Your task to perform on an android device: Open Chrome and go to the settings page Image 0: 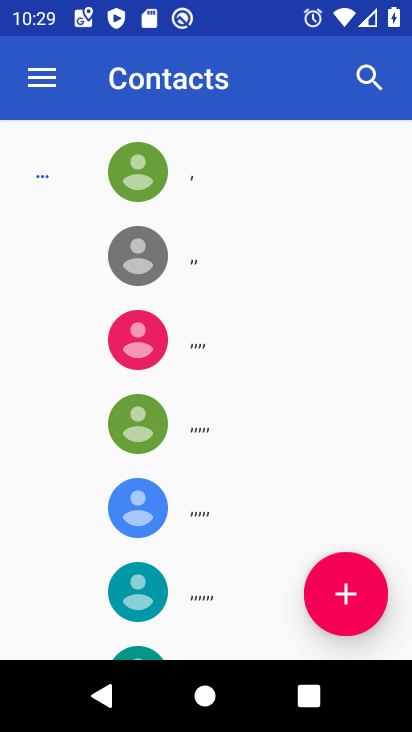
Step 0: press home button
Your task to perform on an android device: Open Chrome and go to the settings page Image 1: 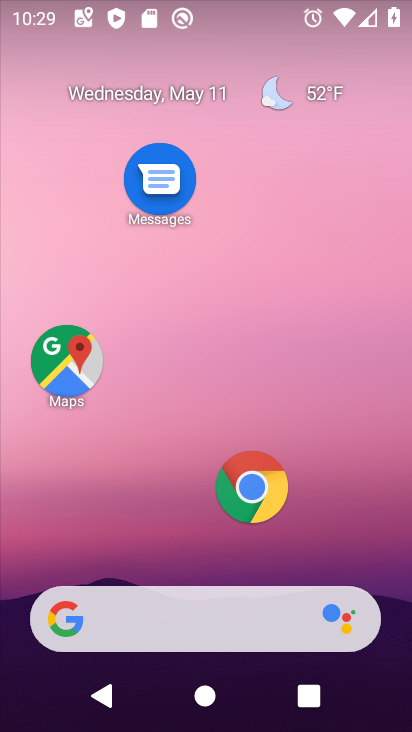
Step 1: click (250, 494)
Your task to perform on an android device: Open Chrome and go to the settings page Image 2: 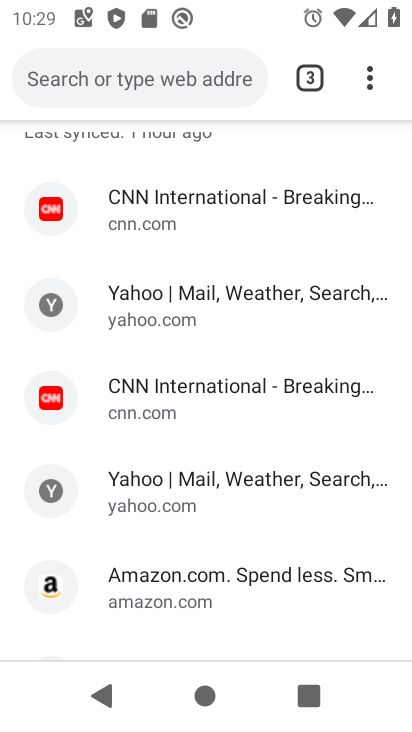
Step 2: task complete